Your task to perform on an android device: Is it going to rain tomorrow? Image 0: 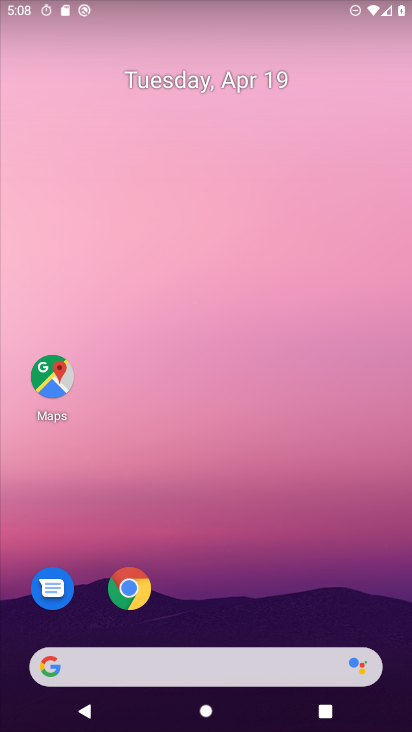
Step 0: drag from (221, 591) to (205, 189)
Your task to perform on an android device: Is it going to rain tomorrow? Image 1: 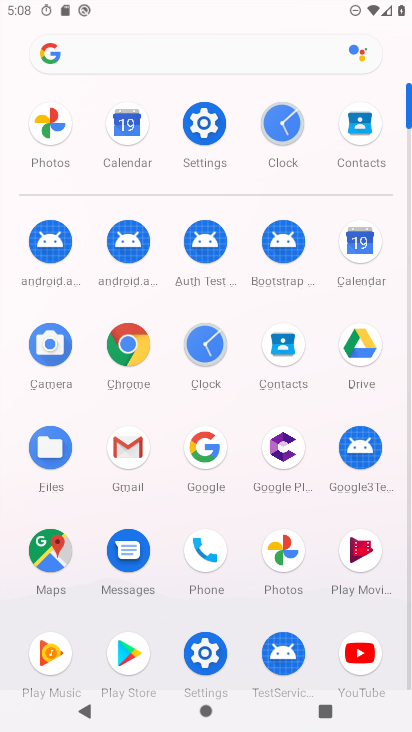
Step 1: click (131, 49)
Your task to perform on an android device: Is it going to rain tomorrow? Image 2: 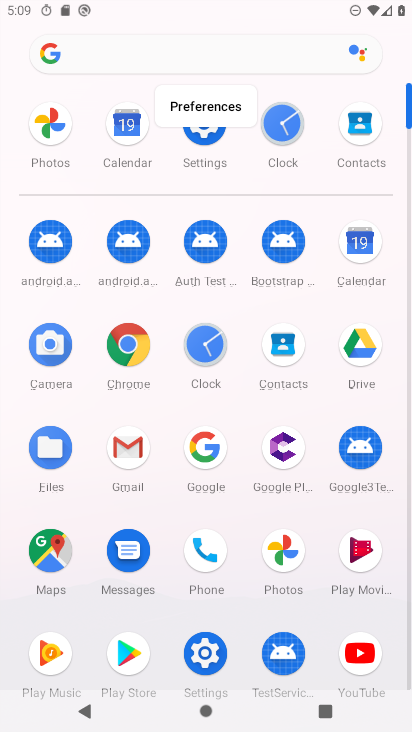
Step 2: click (135, 42)
Your task to perform on an android device: Is it going to rain tomorrow? Image 3: 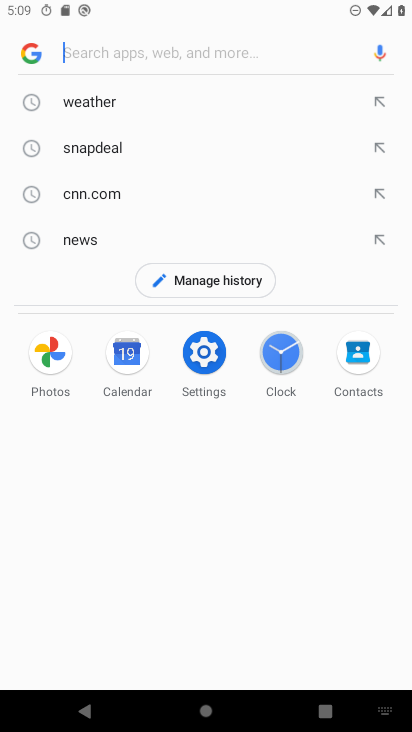
Step 3: type "is it going to rain tomorrow?"
Your task to perform on an android device: Is it going to rain tomorrow? Image 4: 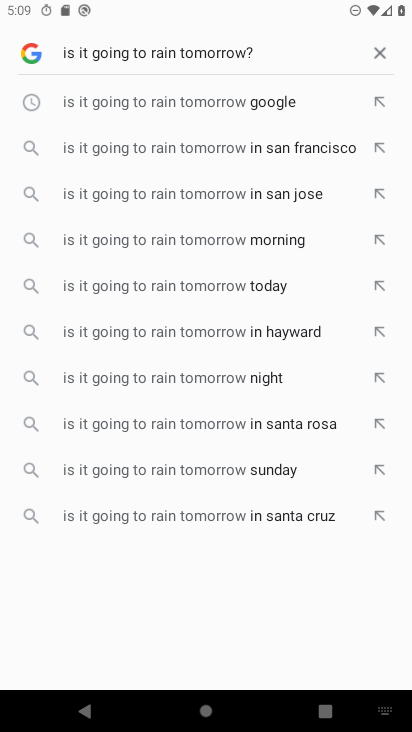
Step 4: click (248, 111)
Your task to perform on an android device: Is it going to rain tomorrow? Image 5: 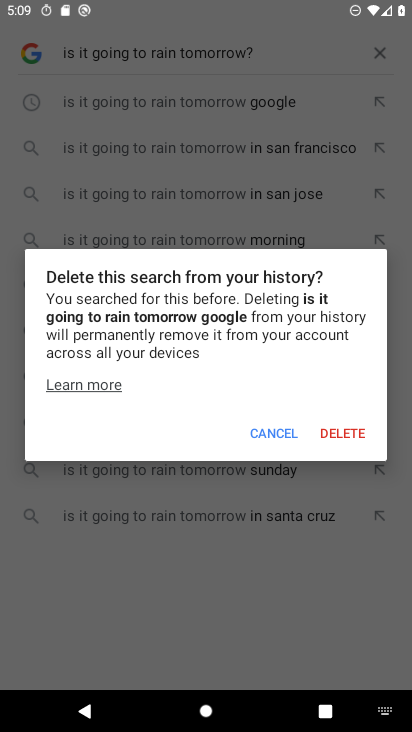
Step 5: click (280, 427)
Your task to perform on an android device: Is it going to rain tomorrow? Image 6: 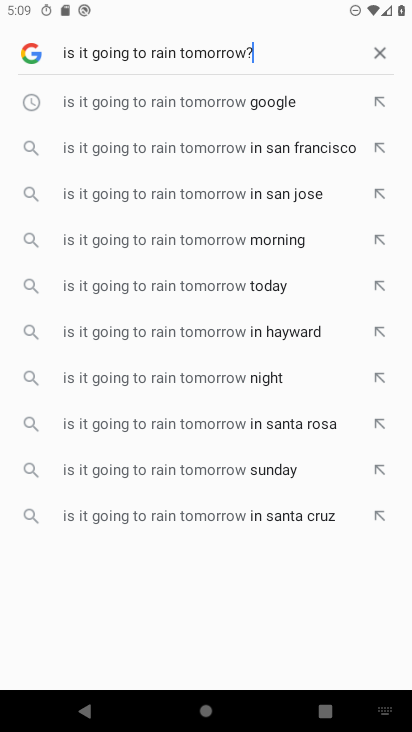
Step 6: click (229, 104)
Your task to perform on an android device: Is it going to rain tomorrow? Image 7: 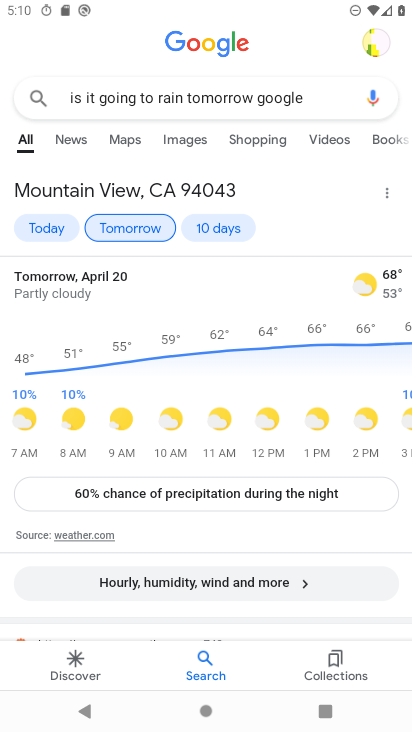
Step 7: task complete